Your task to perform on an android device: toggle show notifications on the lock screen Image 0: 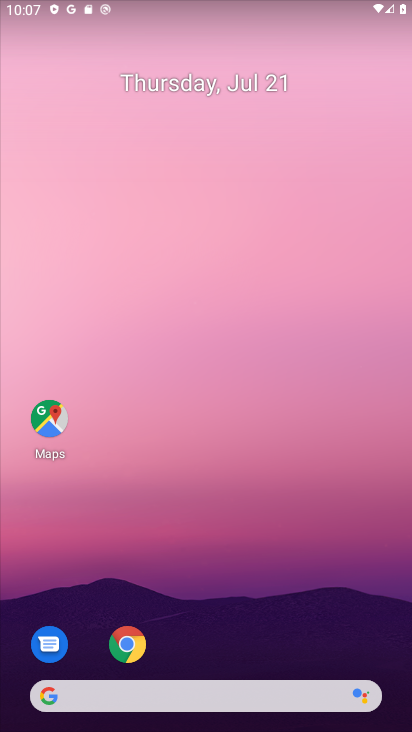
Step 0: drag from (215, 651) to (228, 19)
Your task to perform on an android device: toggle show notifications on the lock screen Image 1: 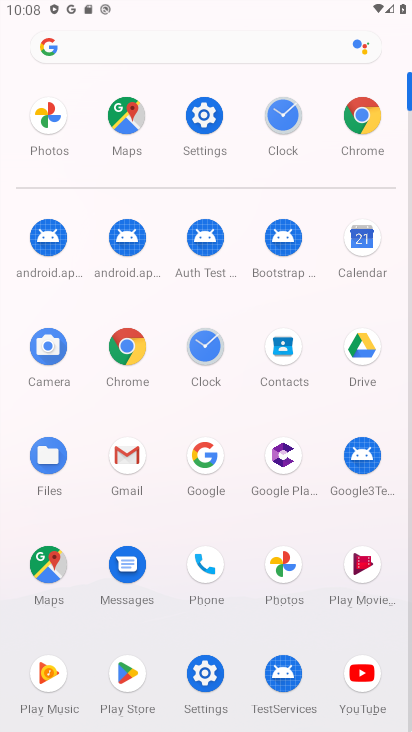
Step 1: click (203, 110)
Your task to perform on an android device: toggle show notifications on the lock screen Image 2: 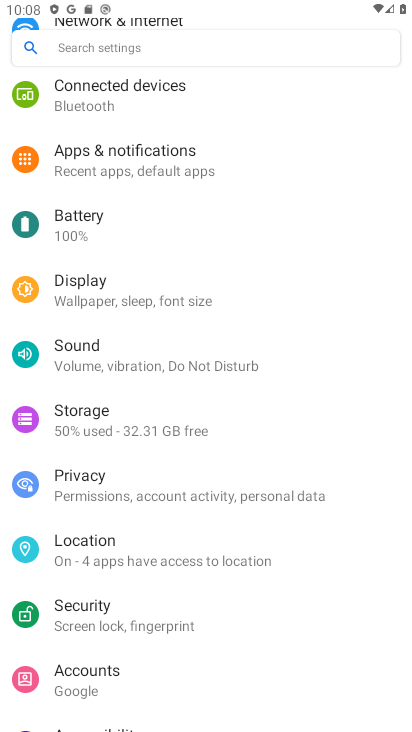
Step 2: click (154, 164)
Your task to perform on an android device: toggle show notifications on the lock screen Image 3: 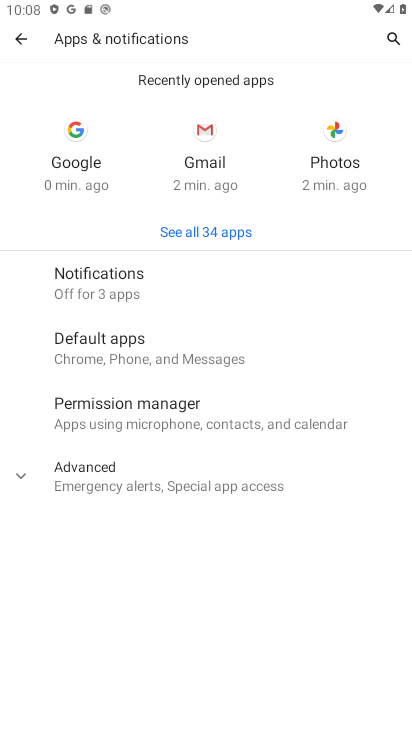
Step 3: click (100, 272)
Your task to perform on an android device: toggle show notifications on the lock screen Image 4: 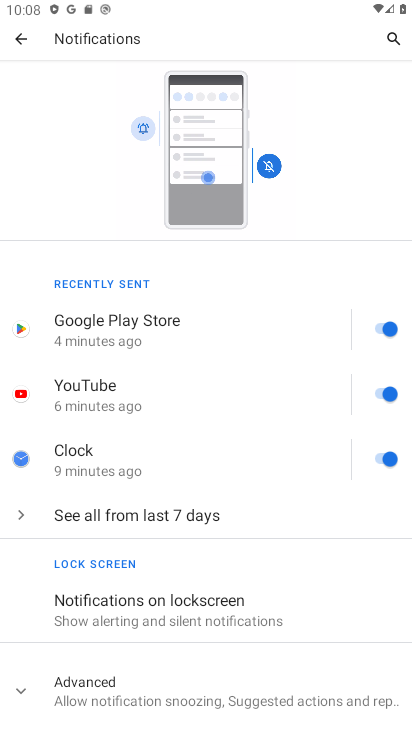
Step 4: click (159, 614)
Your task to perform on an android device: toggle show notifications on the lock screen Image 5: 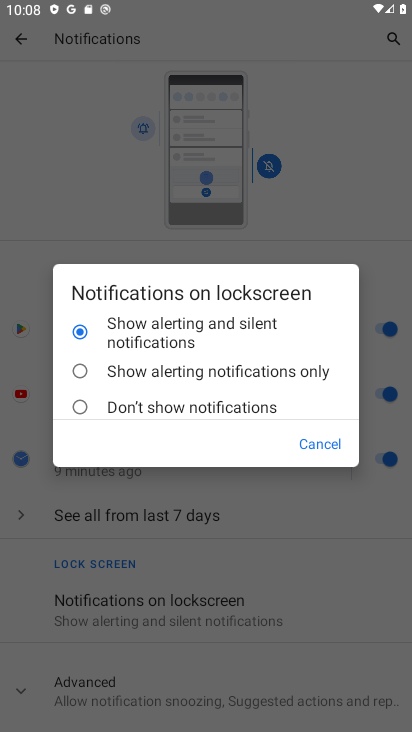
Step 5: click (82, 370)
Your task to perform on an android device: toggle show notifications on the lock screen Image 6: 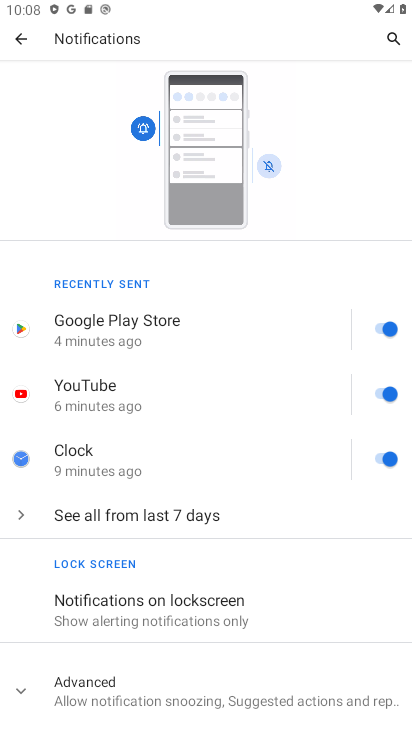
Step 6: task complete